Your task to perform on an android device: Go to settings Image 0: 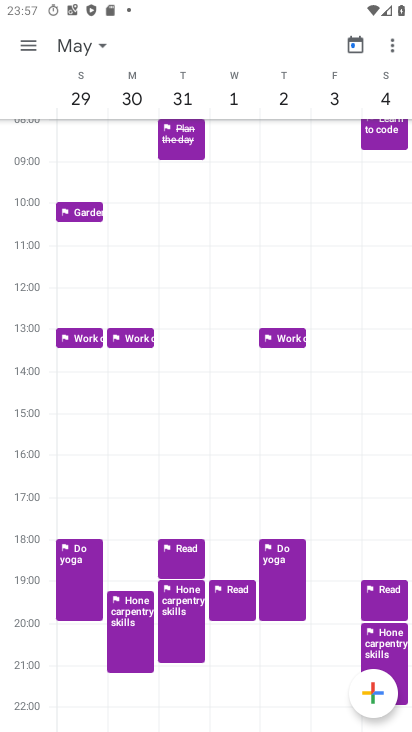
Step 0: press home button
Your task to perform on an android device: Go to settings Image 1: 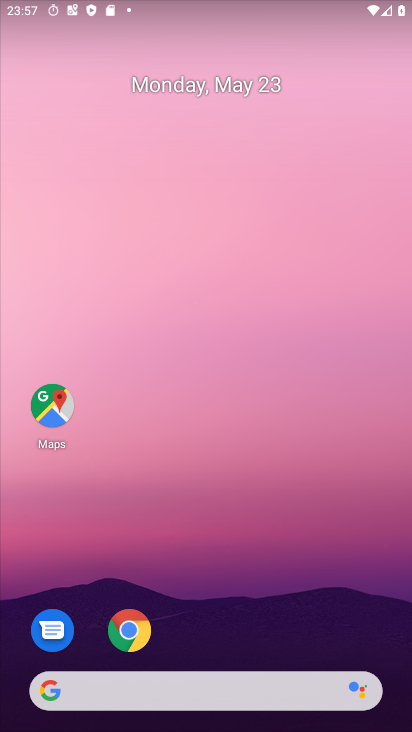
Step 1: drag from (296, 648) to (300, 6)
Your task to perform on an android device: Go to settings Image 2: 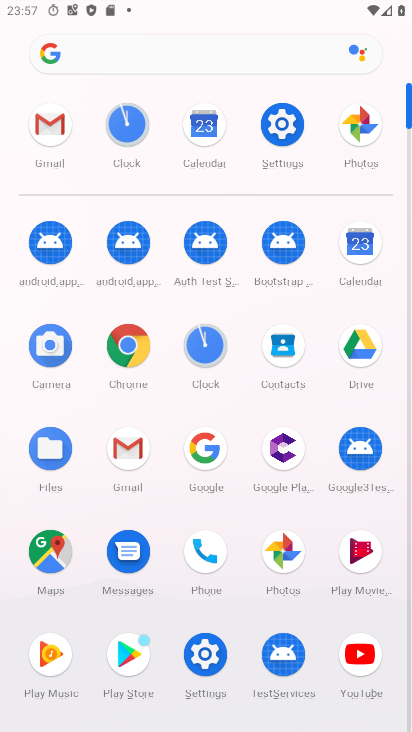
Step 2: click (280, 133)
Your task to perform on an android device: Go to settings Image 3: 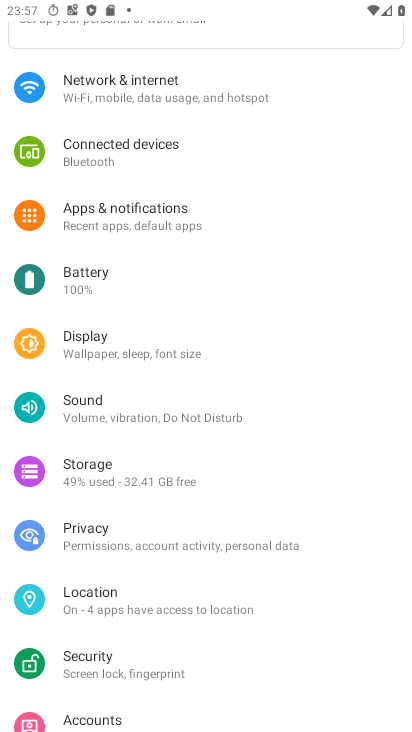
Step 3: task complete